Your task to perform on an android device: turn on translation in the chrome app Image 0: 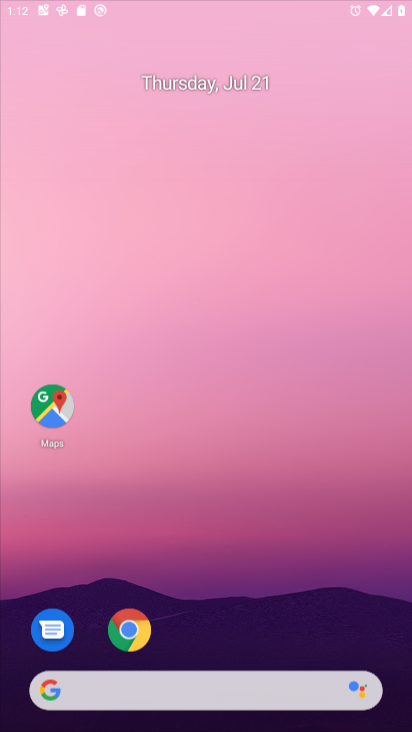
Step 0: drag from (195, 577) to (267, 64)
Your task to perform on an android device: turn on translation in the chrome app Image 1: 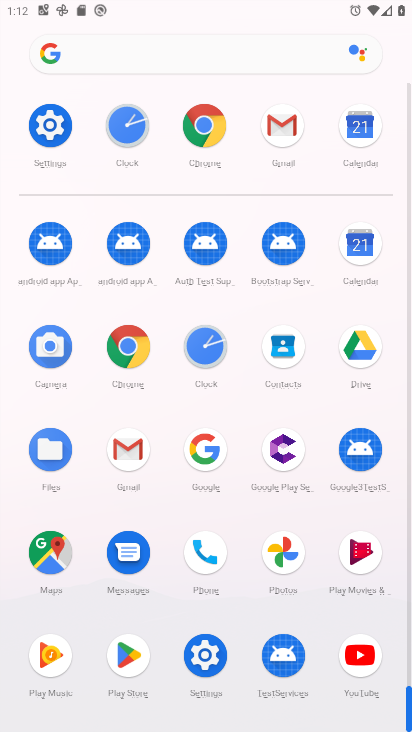
Step 1: click (129, 343)
Your task to perform on an android device: turn on translation in the chrome app Image 2: 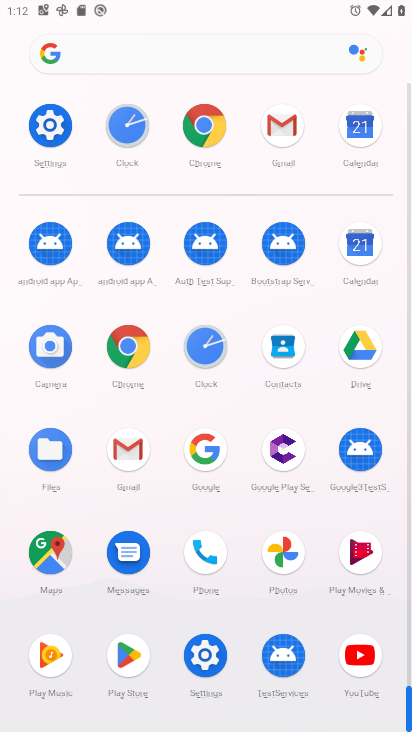
Step 2: click (129, 343)
Your task to perform on an android device: turn on translation in the chrome app Image 3: 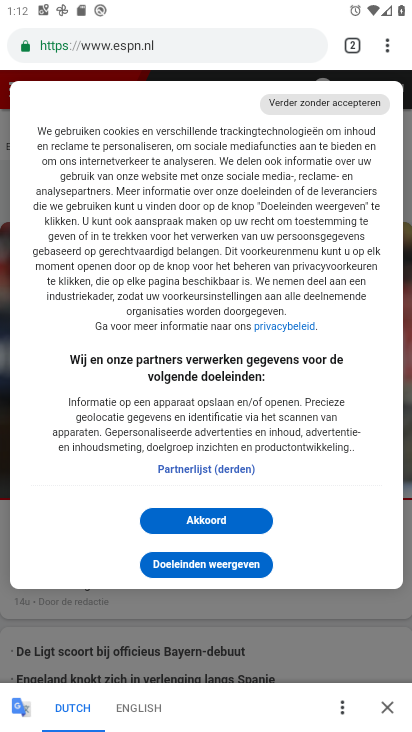
Step 3: drag from (390, 50) to (241, 548)
Your task to perform on an android device: turn on translation in the chrome app Image 4: 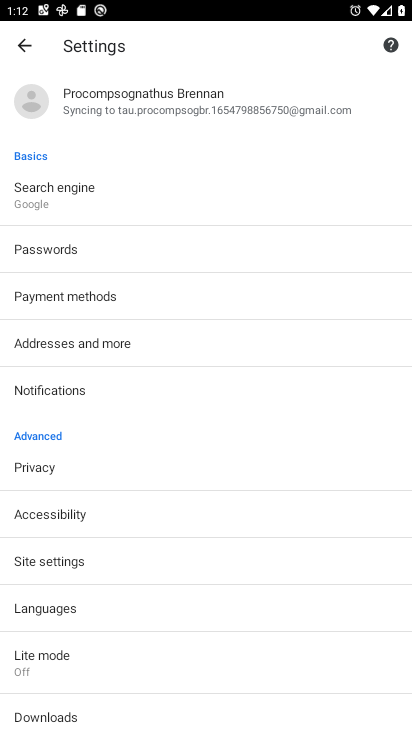
Step 4: click (97, 595)
Your task to perform on an android device: turn on translation in the chrome app Image 5: 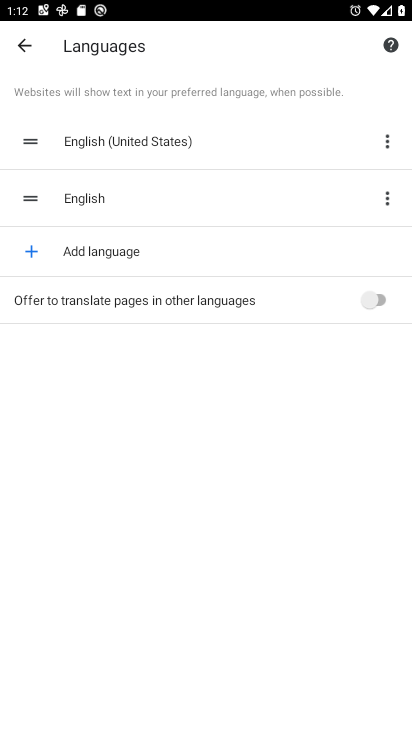
Step 5: click (283, 290)
Your task to perform on an android device: turn on translation in the chrome app Image 6: 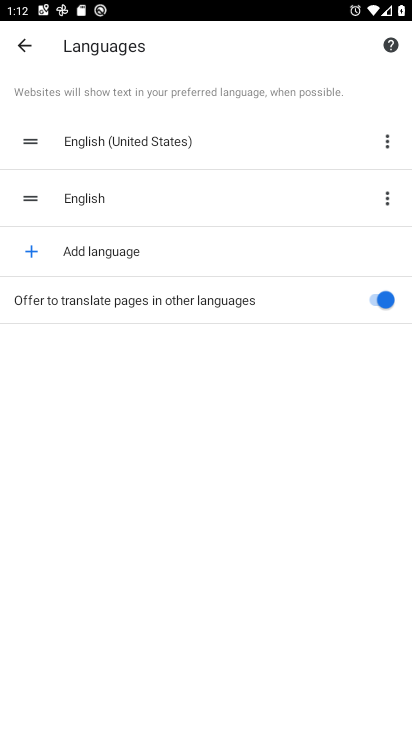
Step 6: task complete